Your task to perform on an android device: Open sound settings Image 0: 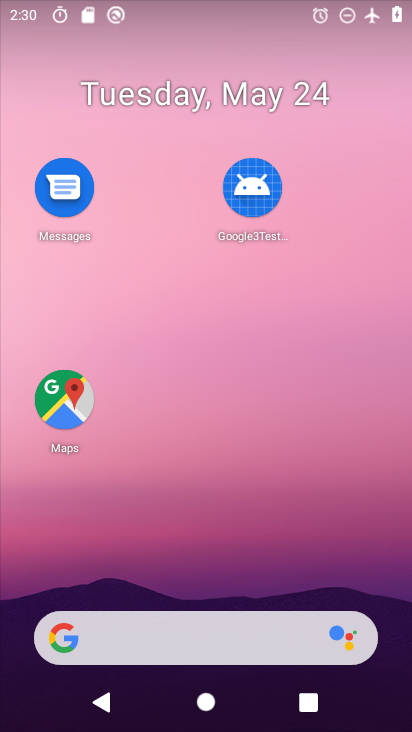
Step 0: drag from (176, 571) to (125, 23)
Your task to perform on an android device: Open sound settings Image 1: 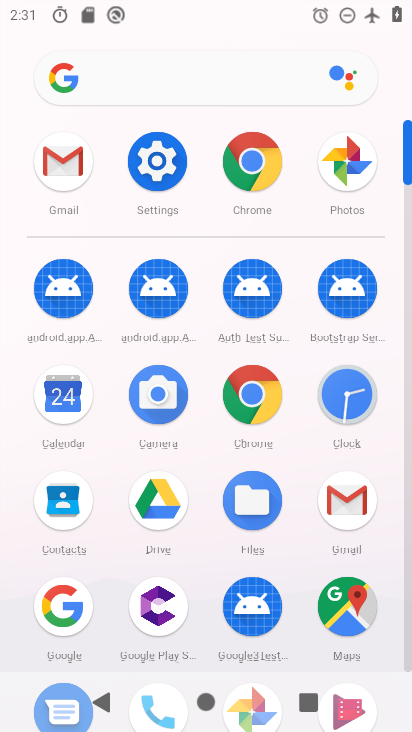
Step 1: click (153, 188)
Your task to perform on an android device: Open sound settings Image 2: 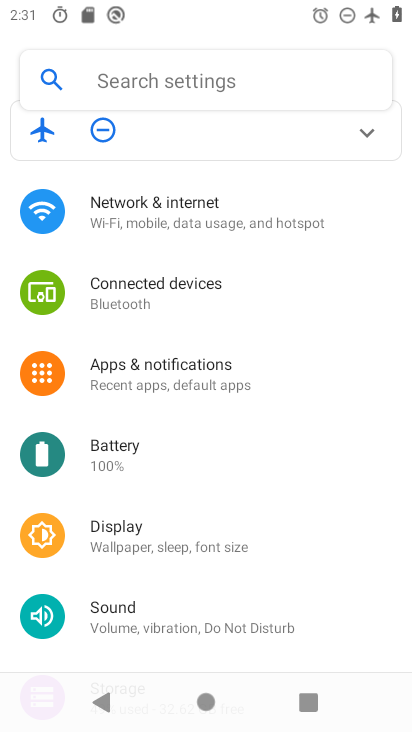
Step 2: click (109, 632)
Your task to perform on an android device: Open sound settings Image 3: 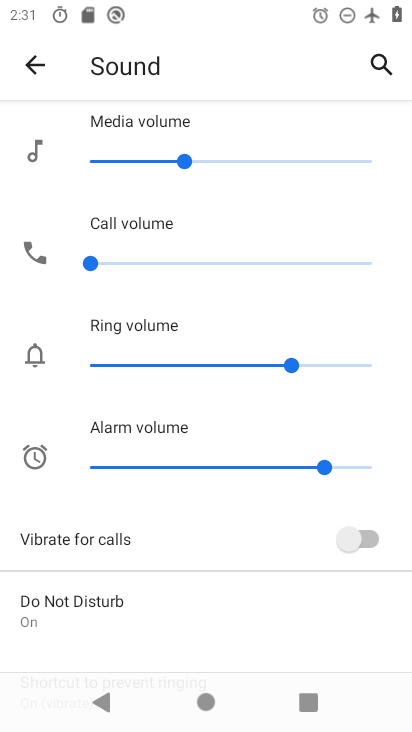
Step 3: task complete